Your task to perform on an android device: turn on improve location accuracy Image 0: 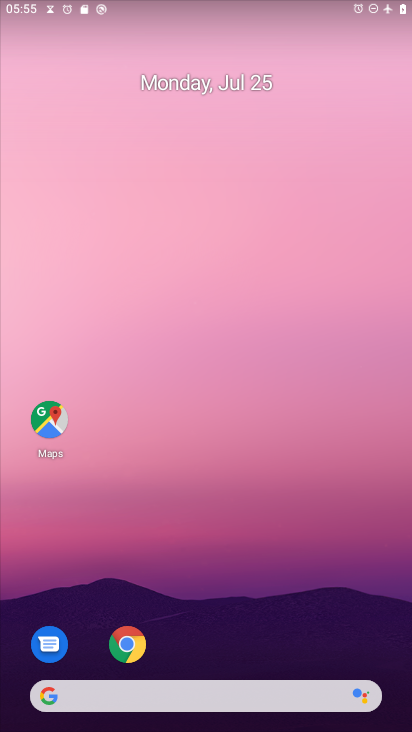
Step 0: press home button
Your task to perform on an android device: turn on improve location accuracy Image 1: 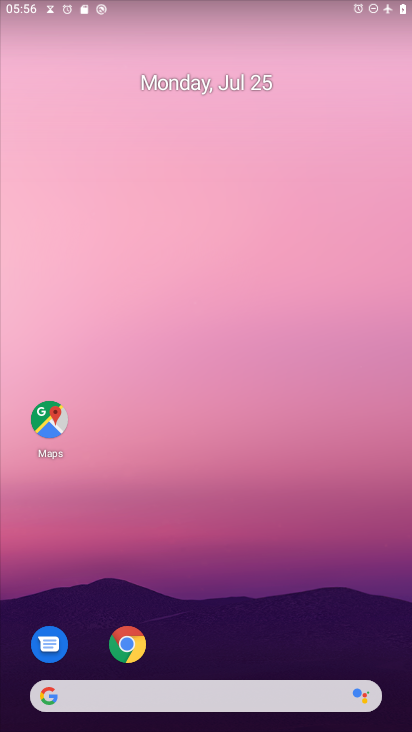
Step 1: drag from (291, 657) to (224, 188)
Your task to perform on an android device: turn on improve location accuracy Image 2: 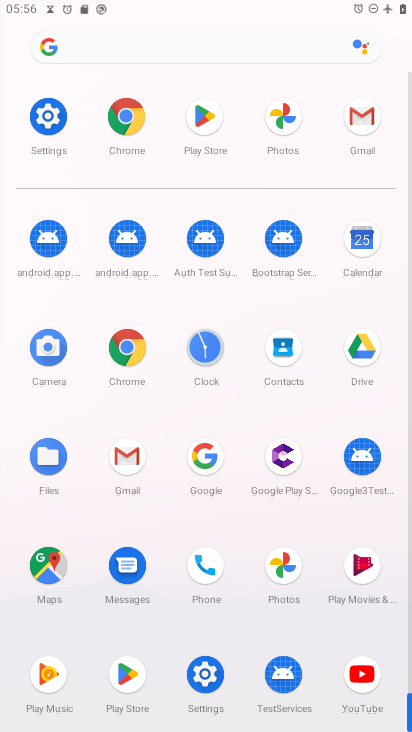
Step 2: click (32, 125)
Your task to perform on an android device: turn on improve location accuracy Image 3: 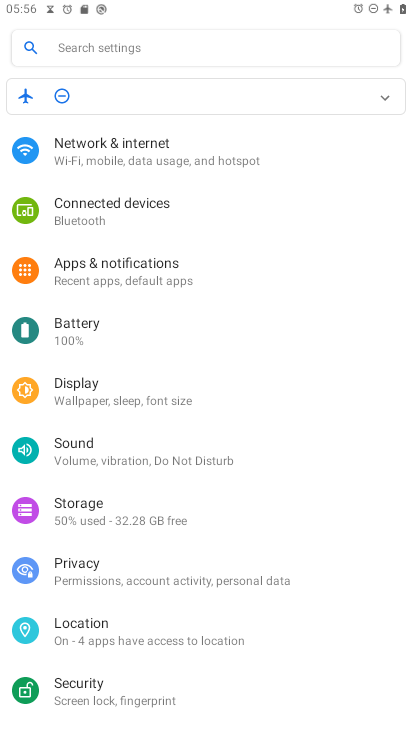
Step 3: click (89, 625)
Your task to perform on an android device: turn on improve location accuracy Image 4: 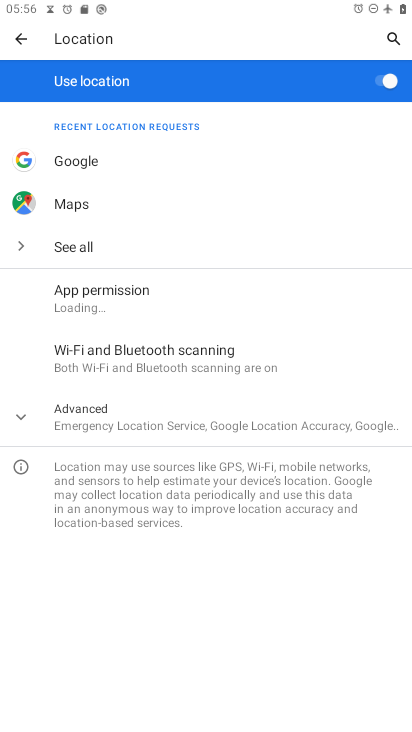
Step 4: click (82, 428)
Your task to perform on an android device: turn on improve location accuracy Image 5: 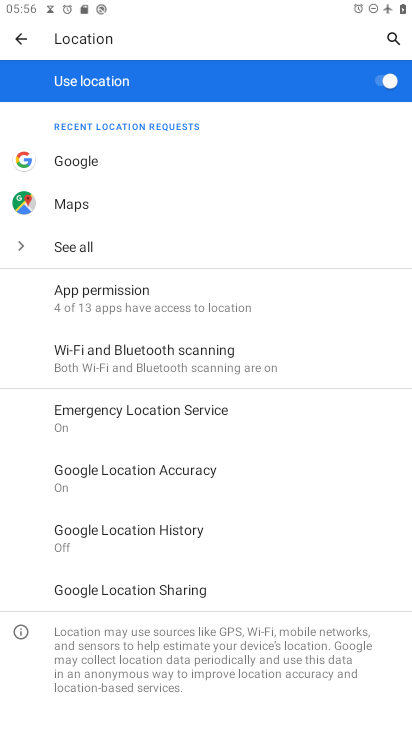
Step 5: click (149, 476)
Your task to perform on an android device: turn on improve location accuracy Image 6: 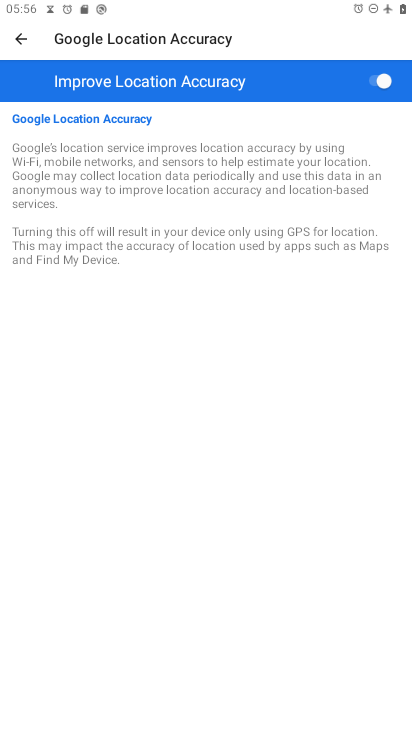
Step 6: task complete